Your task to perform on an android device: Toggle the flashlight Image 0: 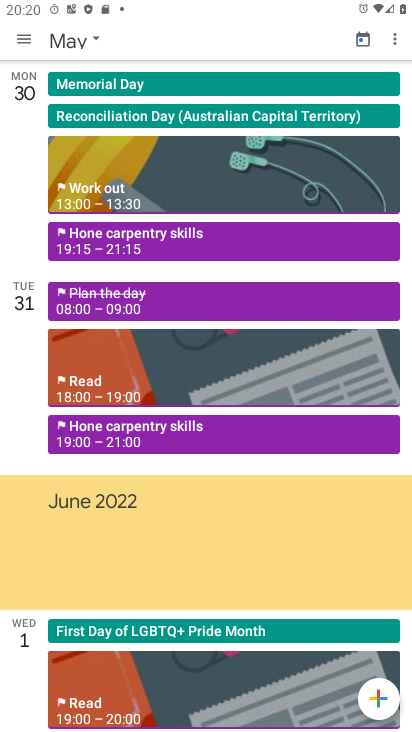
Step 0: drag from (266, 709) to (302, 369)
Your task to perform on an android device: Toggle the flashlight Image 1: 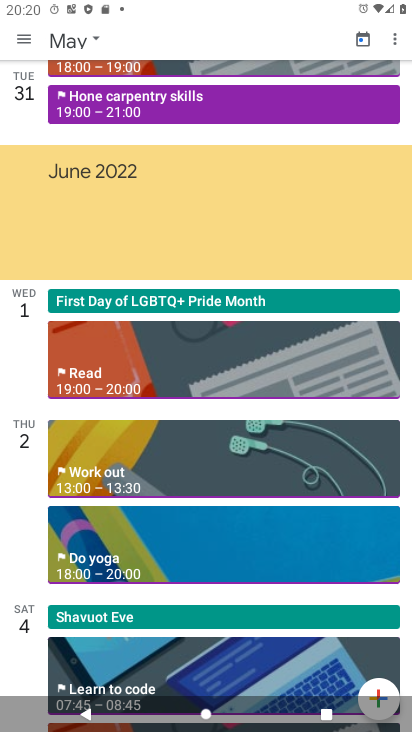
Step 1: press home button
Your task to perform on an android device: Toggle the flashlight Image 2: 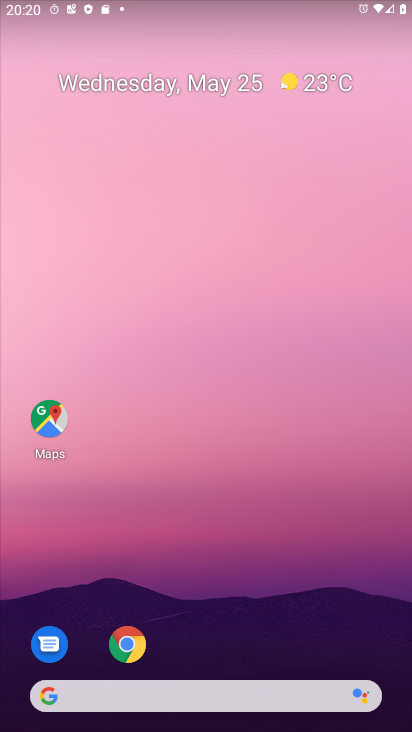
Step 2: drag from (247, 715) to (303, 153)
Your task to perform on an android device: Toggle the flashlight Image 3: 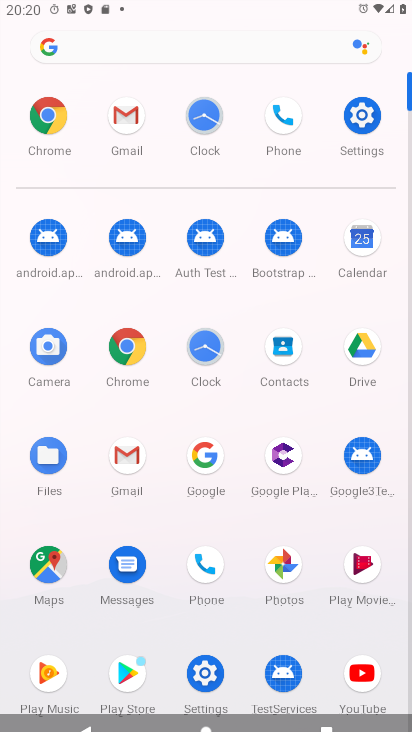
Step 3: click (366, 127)
Your task to perform on an android device: Toggle the flashlight Image 4: 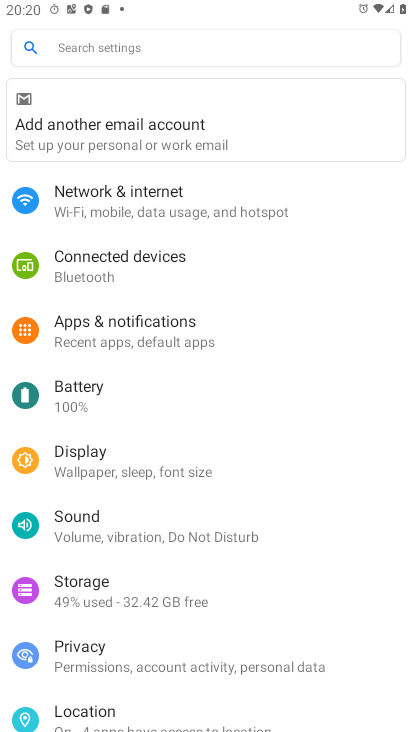
Step 4: click (206, 39)
Your task to perform on an android device: Toggle the flashlight Image 5: 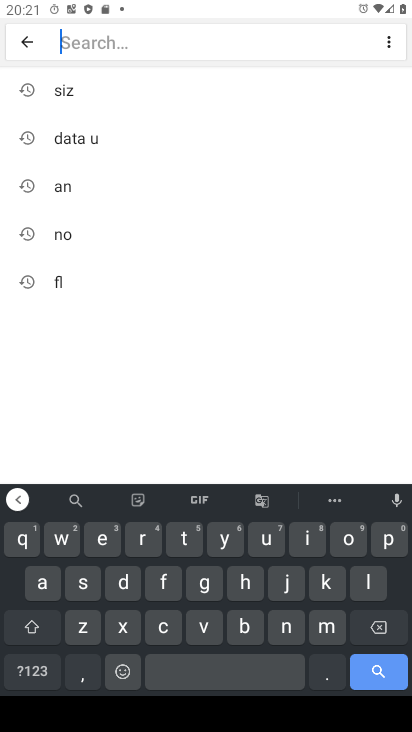
Step 5: click (169, 581)
Your task to perform on an android device: Toggle the flashlight Image 6: 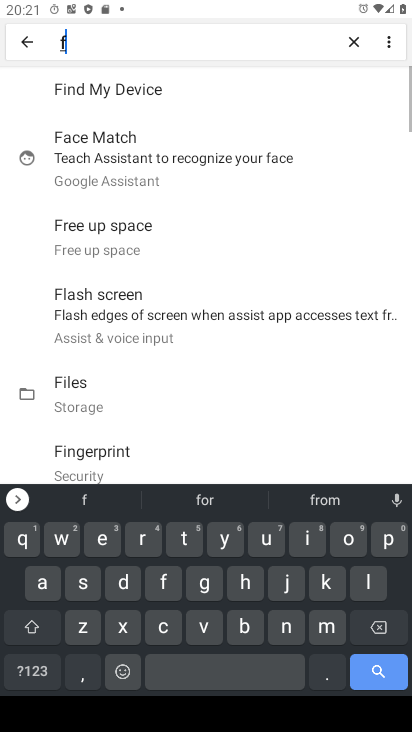
Step 6: click (371, 578)
Your task to perform on an android device: Toggle the flashlight Image 7: 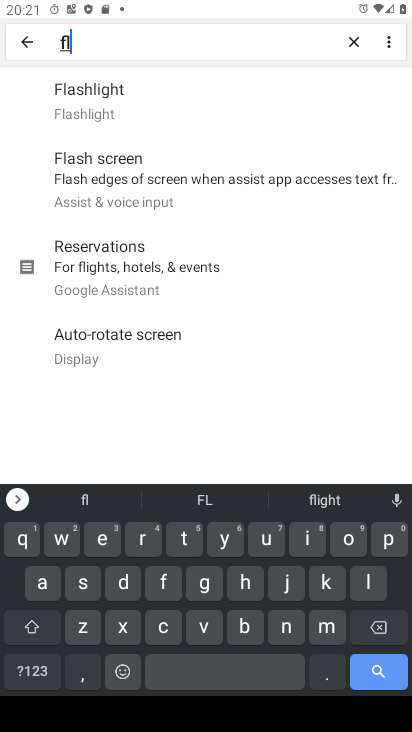
Step 7: click (98, 90)
Your task to perform on an android device: Toggle the flashlight Image 8: 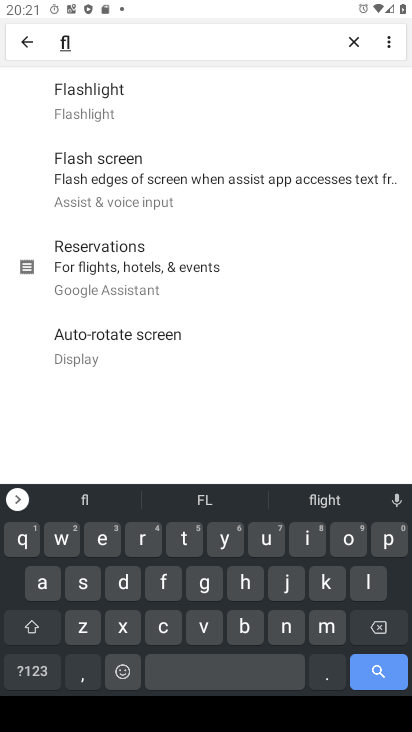
Step 8: click (120, 112)
Your task to perform on an android device: Toggle the flashlight Image 9: 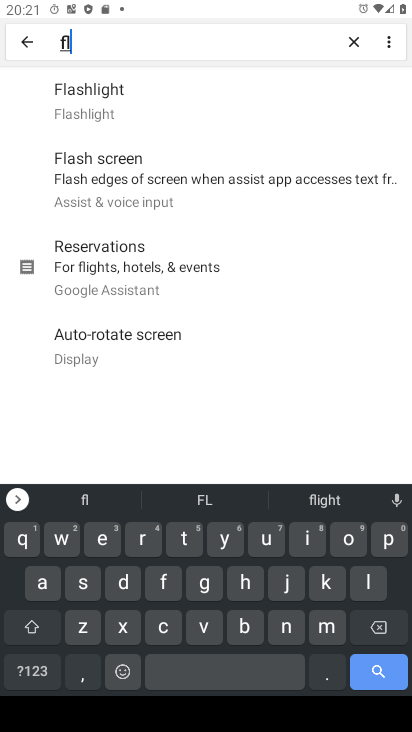
Step 9: task complete